Your task to perform on an android device: Show me recent news Image 0: 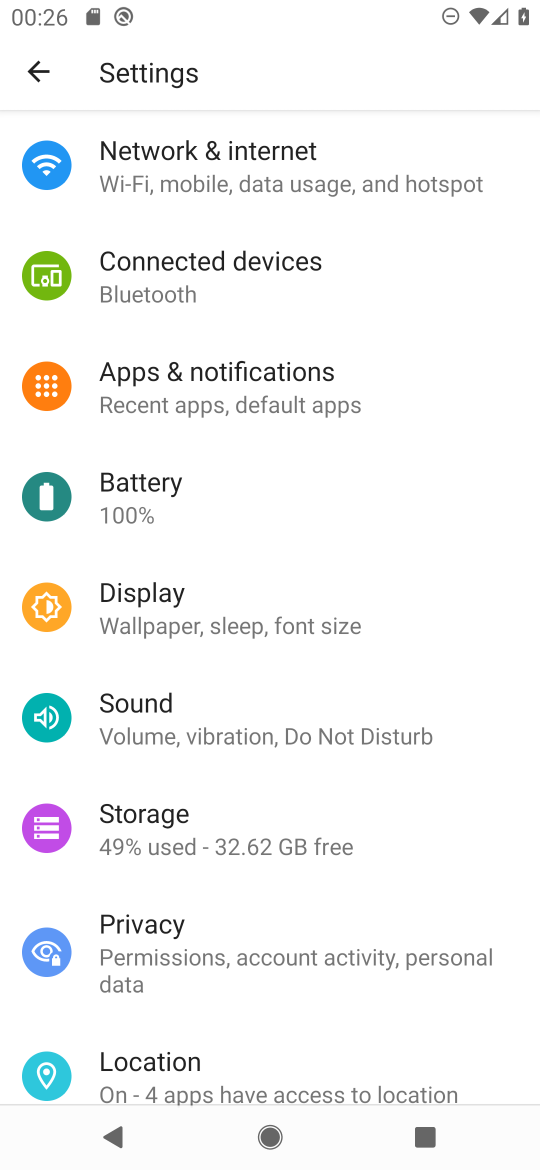
Step 0: press home button
Your task to perform on an android device: Show me recent news Image 1: 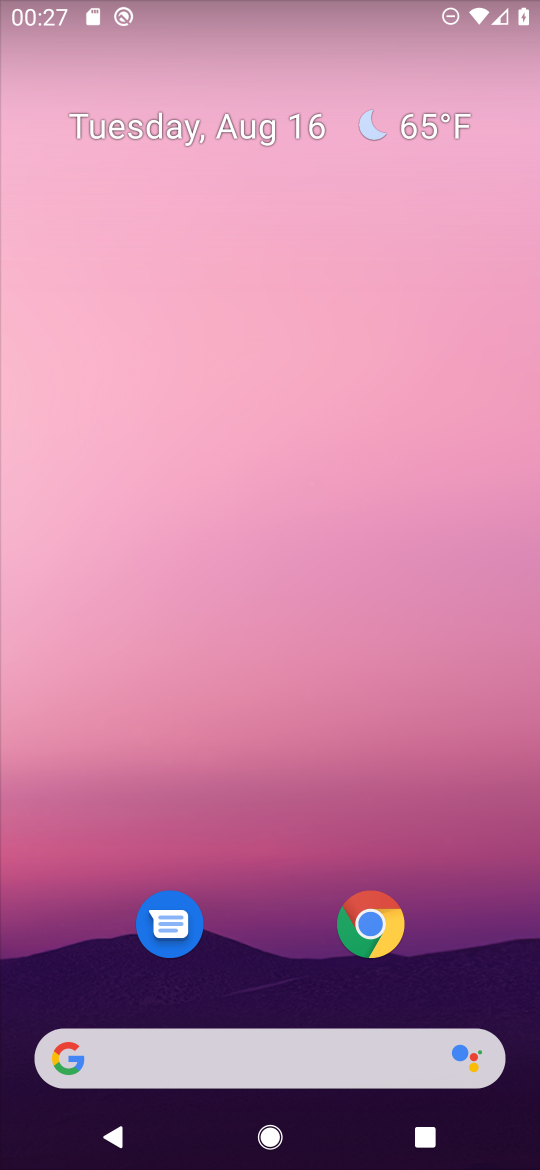
Step 1: task complete